Your task to perform on an android device: change timer sound Image 0: 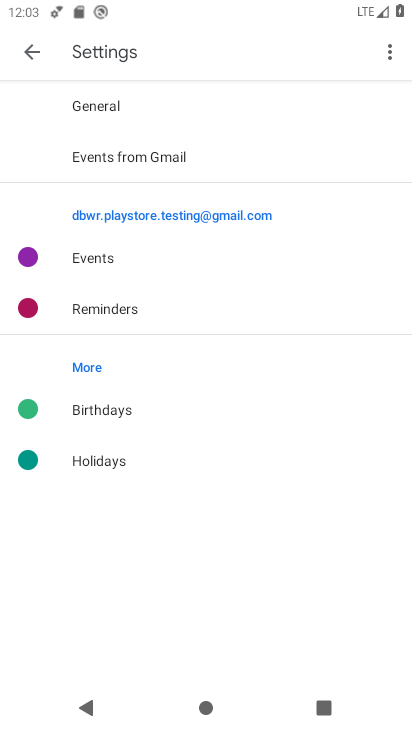
Step 0: press home button
Your task to perform on an android device: change timer sound Image 1: 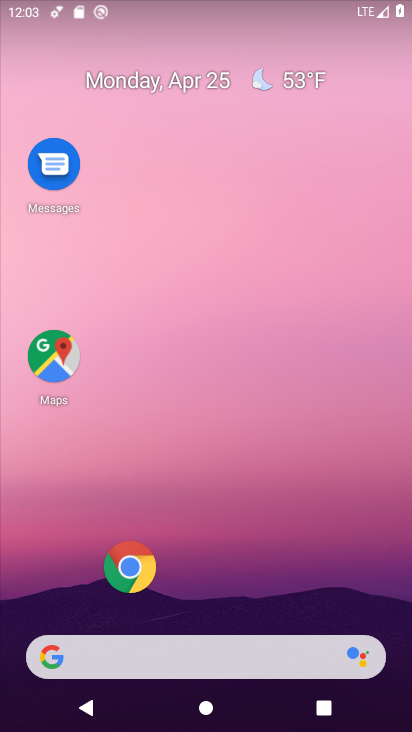
Step 1: drag from (193, 581) to (180, 9)
Your task to perform on an android device: change timer sound Image 2: 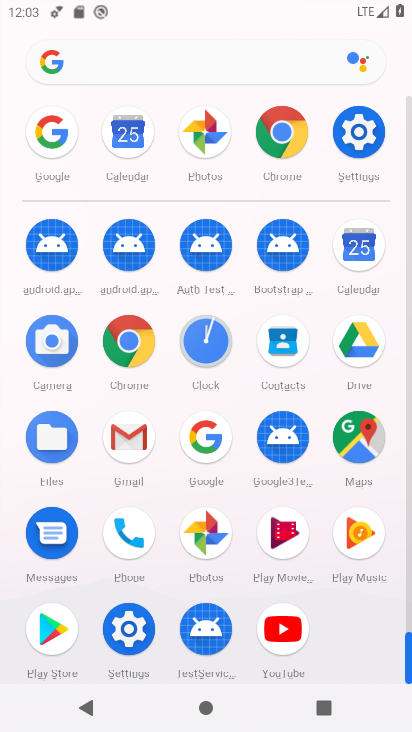
Step 2: click (216, 352)
Your task to perform on an android device: change timer sound Image 3: 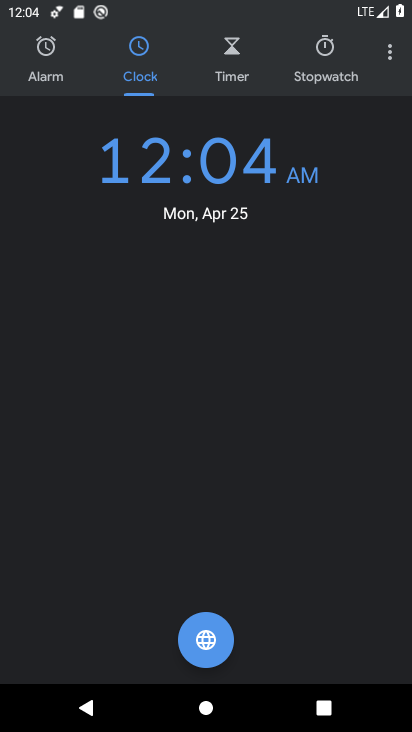
Step 3: click (379, 63)
Your task to perform on an android device: change timer sound Image 4: 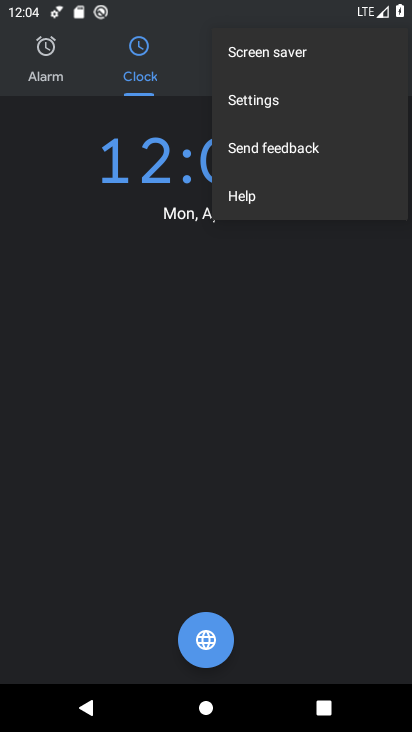
Step 4: click (259, 112)
Your task to perform on an android device: change timer sound Image 5: 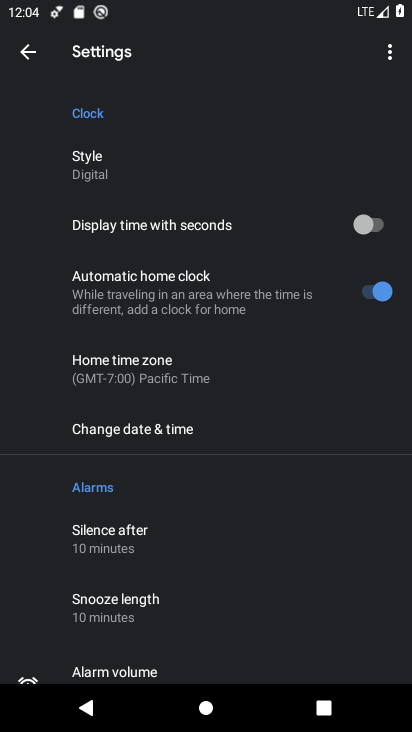
Step 5: drag from (209, 564) to (199, 214)
Your task to perform on an android device: change timer sound Image 6: 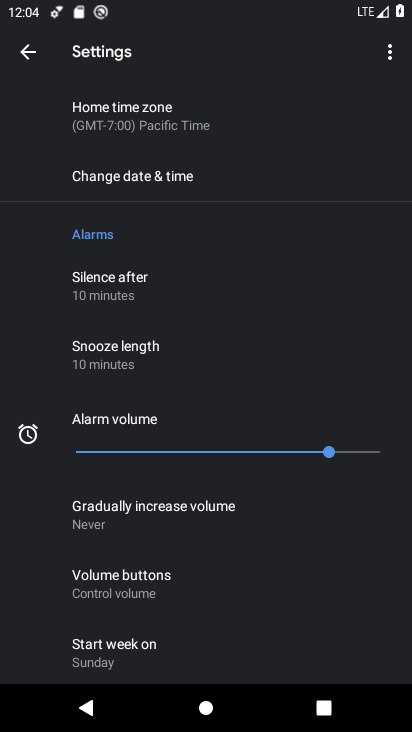
Step 6: drag from (162, 456) to (145, 160)
Your task to perform on an android device: change timer sound Image 7: 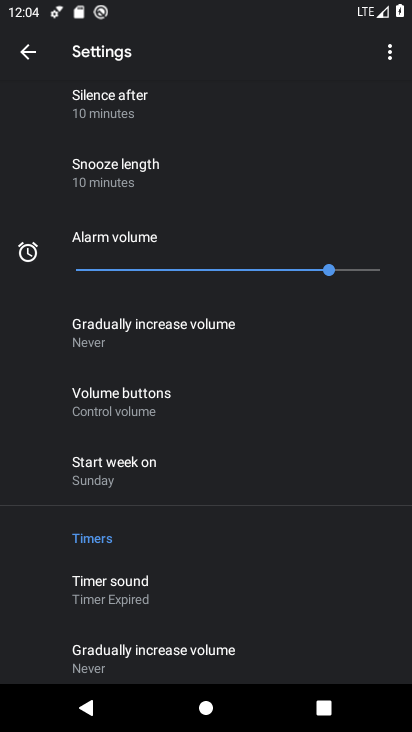
Step 7: drag from (168, 528) to (168, 311)
Your task to perform on an android device: change timer sound Image 8: 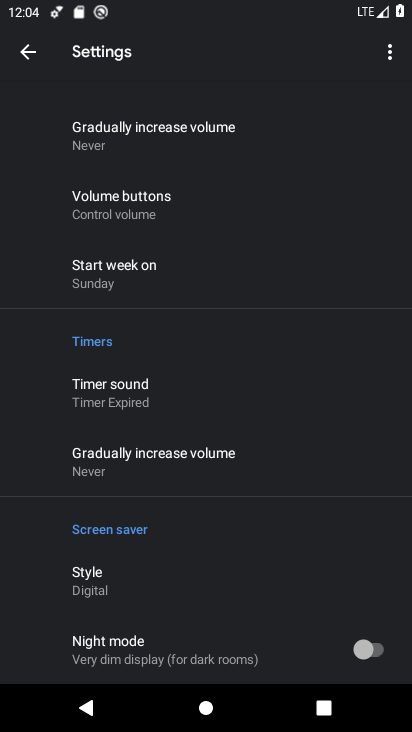
Step 8: click (148, 403)
Your task to perform on an android device: change timer sound Image 9: 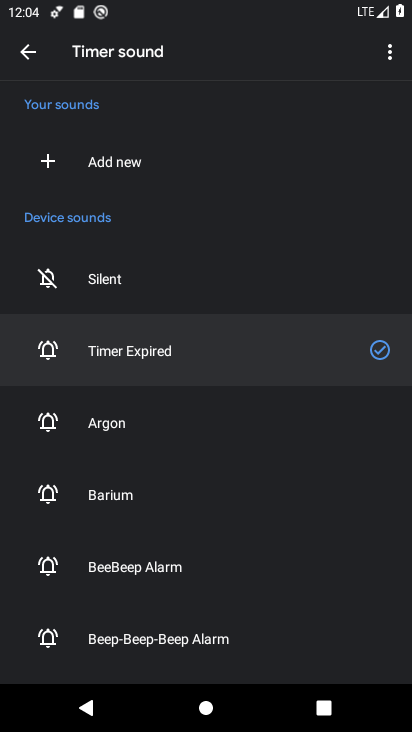
Step 9: click (157, 429)
Your task to perform on an android device: change timer sound Image 10: 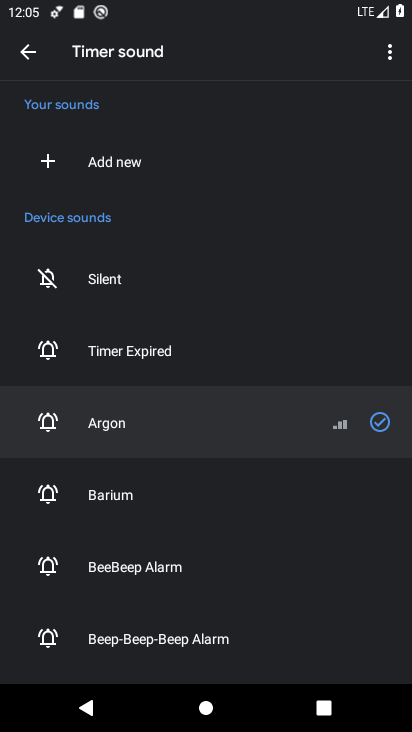
Step 10: task complete